Your task to perform on an android device: Open Chrome and go to settings Image 0: 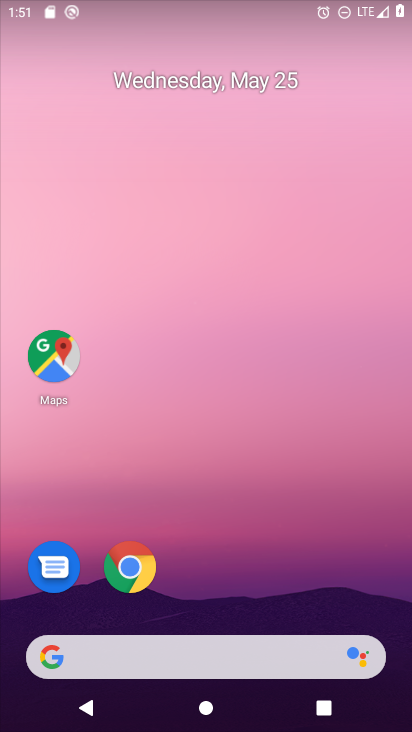
Step 0: click (125, 562)
Your task to perform on an android device: Open Chrome and go to settings Image 1: 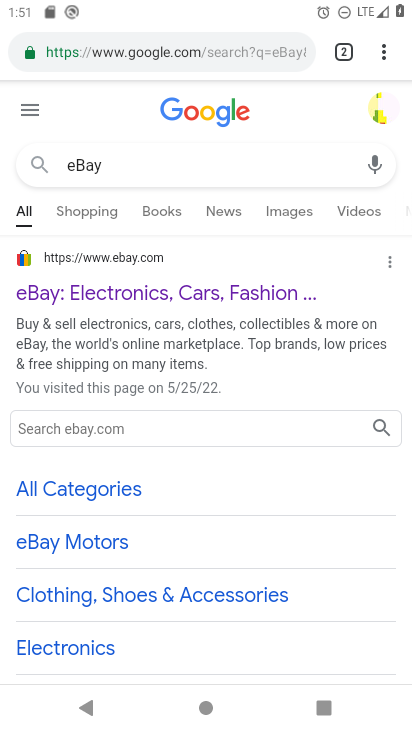
Step 1: click (382, 44)
Your task to perform on an android device: Open Chrome and go to settings Image 2: 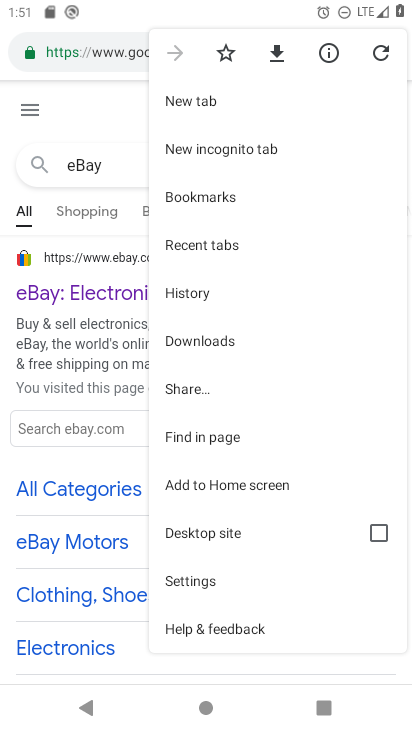
Step 2: click (185, 582)
Your task to perform on an android device: Open Chrome and go to settings Image 3: 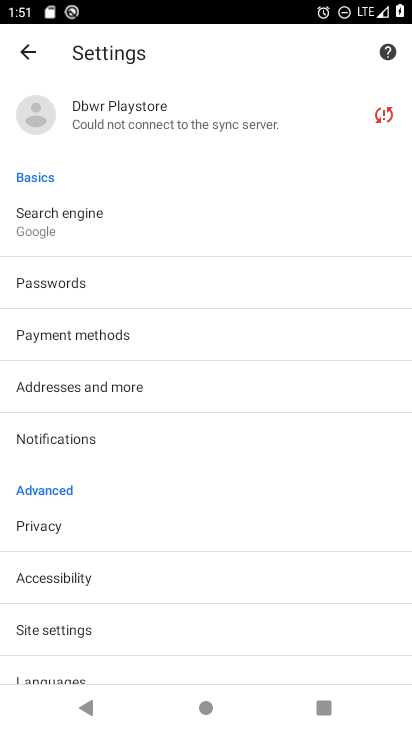
Step 3: click (76, 633)
Your task to perform on an android device: Open Chrome and go to settings Image 4: 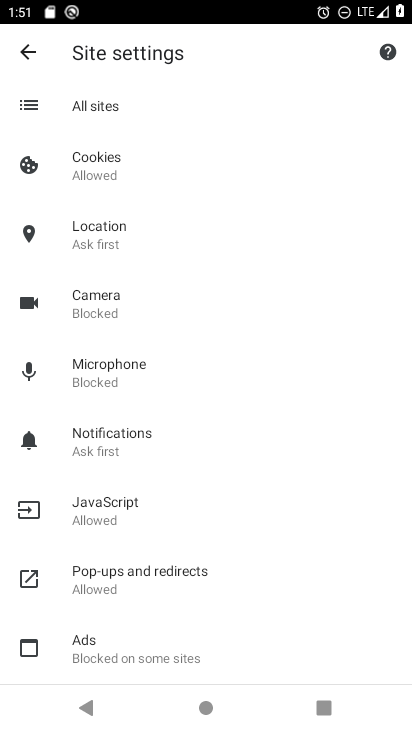
Step 4: click (23, 56)
Your task to perform on an android device: Open Chrome and go to settings Image 5: 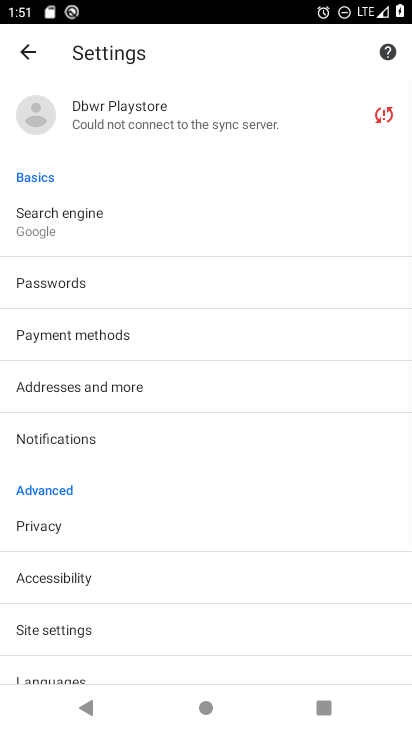
Step 5: task complete